Your task to perform on an android device: allow cookies in the chrome app Image 0: 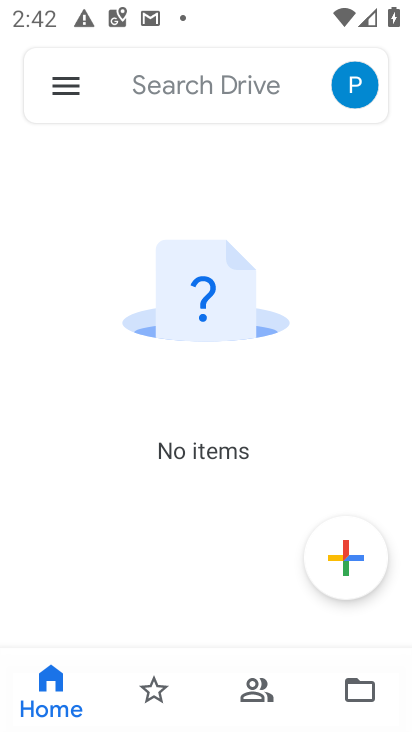
Step 0: press home button
Your task to perform on an android device: allow cookies in the chrome app Image 1: 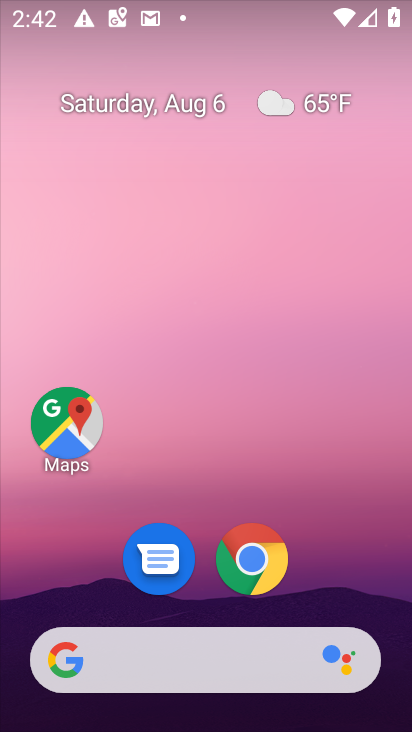
Step 1: click (249, 541)
Your task to perform on an android device: allow cookies in the chrome app Image 2: 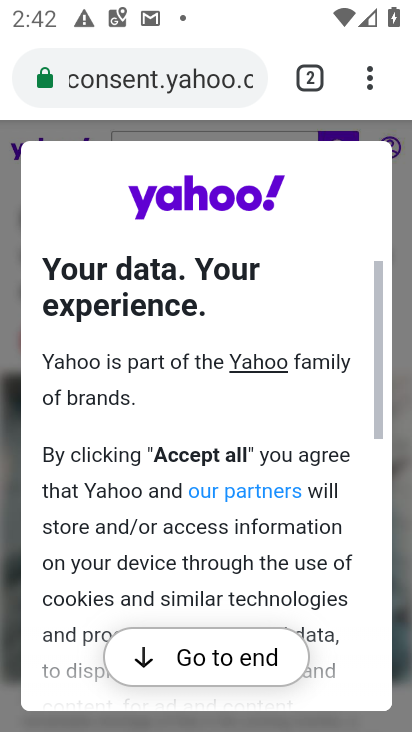
Step 2: click (369, 83)
Your task to perform on an android device: allow cookies in the chrome app Image 3: 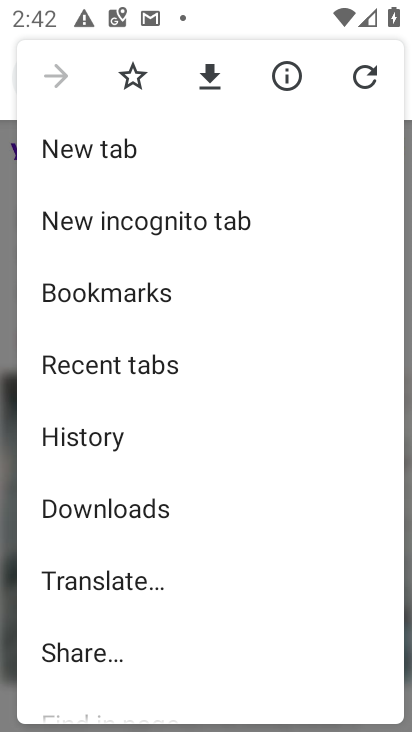
Step 3: drag from (172, 598) to (212, 298)
Your task to perform on an android device: allow cookies in the chrome app Image 4: 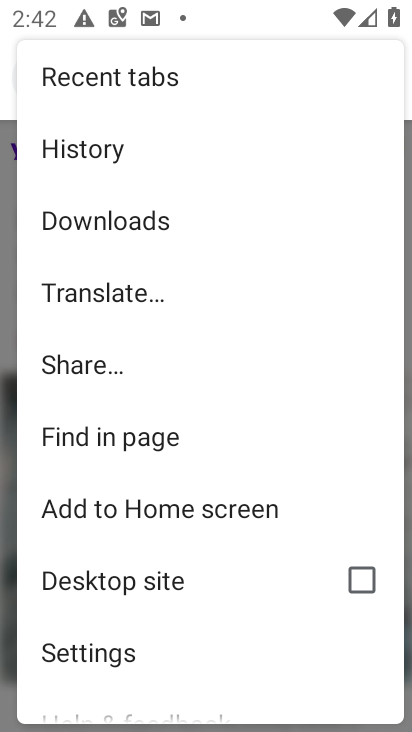
Step 4: drag from (167, 639) to (215, 346)
Your task to perform on an android device: allow cookies in the chrome app Image 5: 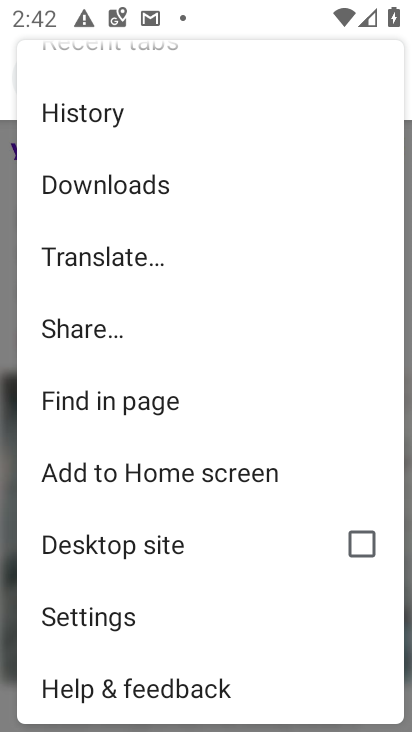
Step 5: click (119, 609)
Your task to perform on an android device: allow cookies in the chrome app Image 6: 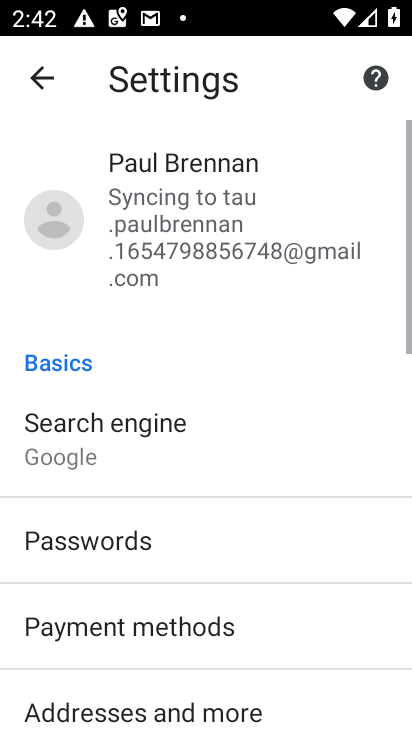
Step 6: drag from (127, 609) to (145, 249)
Your task to perform on an android device: allow cookies in the chrome app Image 7: 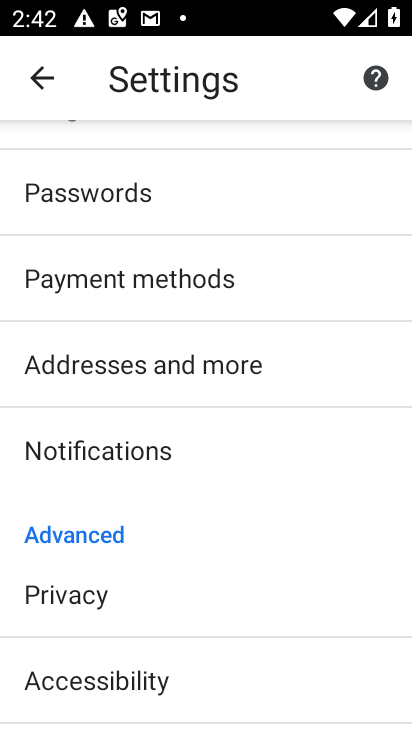
Step 7: drag from (166, 632) to (211, 306)
Your task to perform on an android device: allow cookies in the chrome app Image 8: 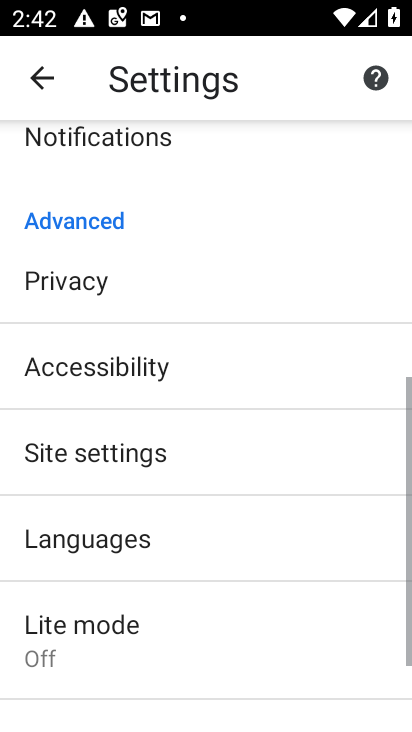
Step 8: click (113, 462)
Your task to perform on an android device: allow cookies in the chrome app Image 9: 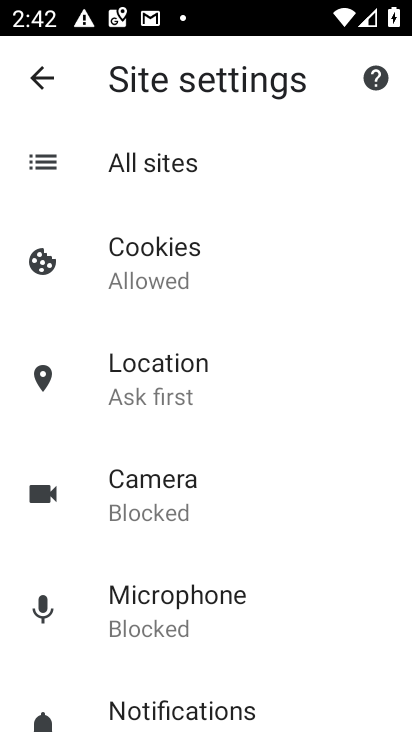
Step 9: click (163, 247)
Your task to perform on an android device: allow cookies in the chrome app Image 10: 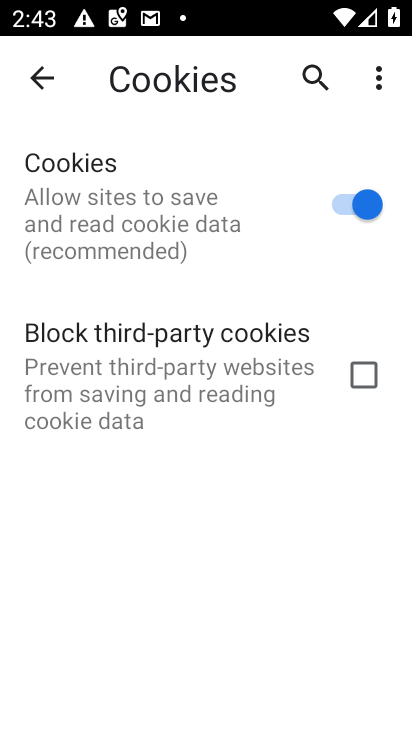
Step 10: task complete